Your task to perform on an android device: delete browsing data in the chrome app Image 0: 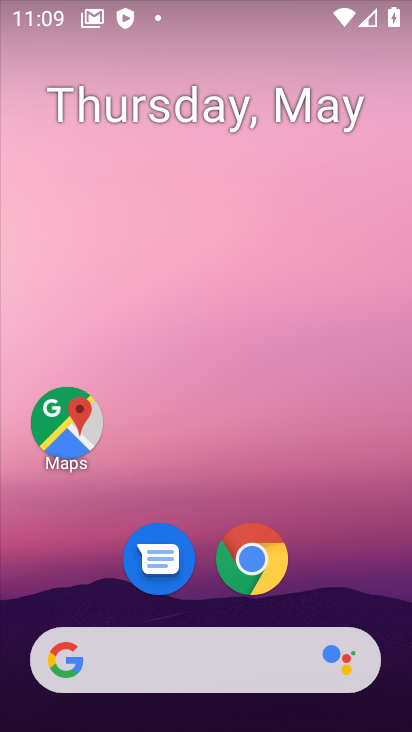
Step 0: click (256, 563)
Your task to perform on an android device: delete browsing data in the chrome app Image 1: 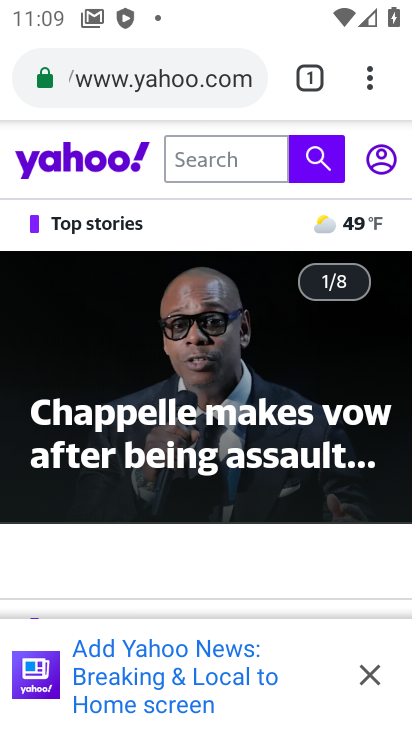
Step 1: click (370, 87)
Your task to perform on an android device: delete browsing data in the chrome app Image 2: 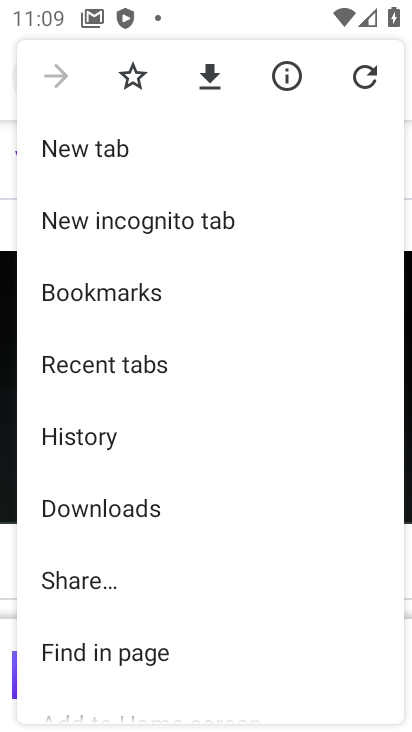
Step 2: click (73, 437)
Your task to perform on an android device: delete browsing data in the chrome app Image 3: 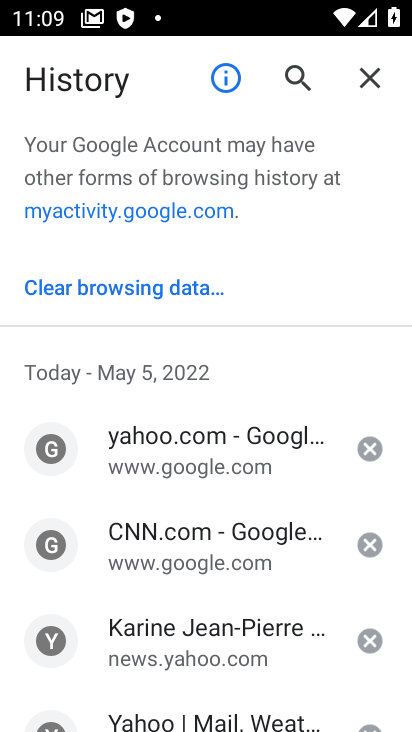
Step 3: click (91, 284)
Your task to perform on an android device: delete browsing data in the chrome app Image 4: 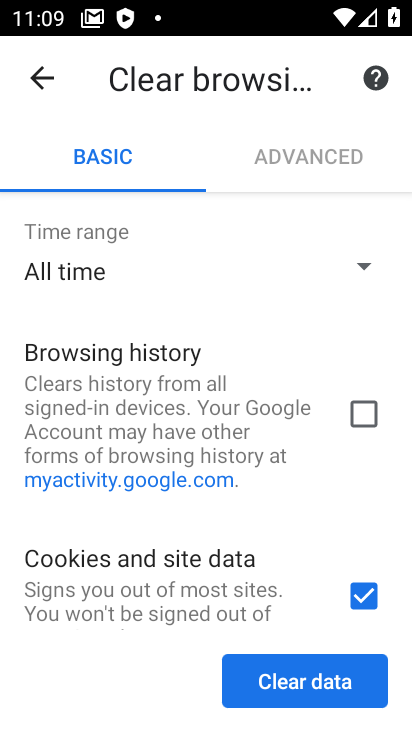
Step 4: click (368, 415)
Your task to perform on an android device: delete browsing data in the chrome app Image 5: 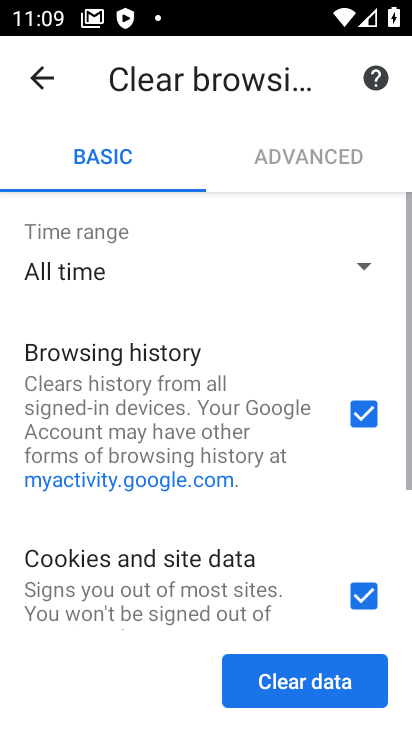
Step 5: drag from (227, 531) to (221, 274)
Your task to perform on an android device: delete browsing data in the chrome app Image 6: 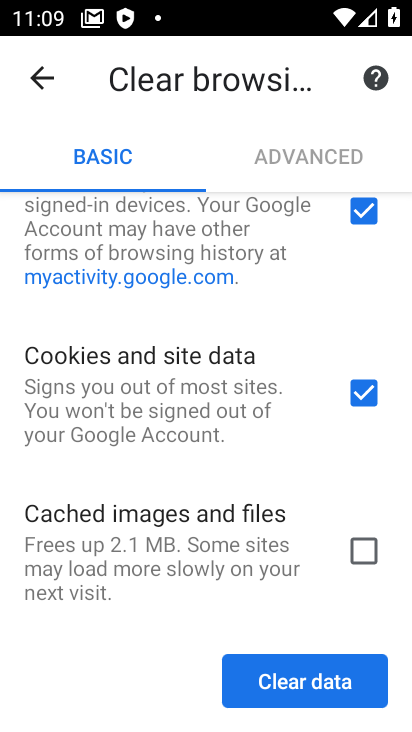
Step 6: click (363, 383)
Your task to perform on an android device: delete browsing data in the chrome app Image 7: 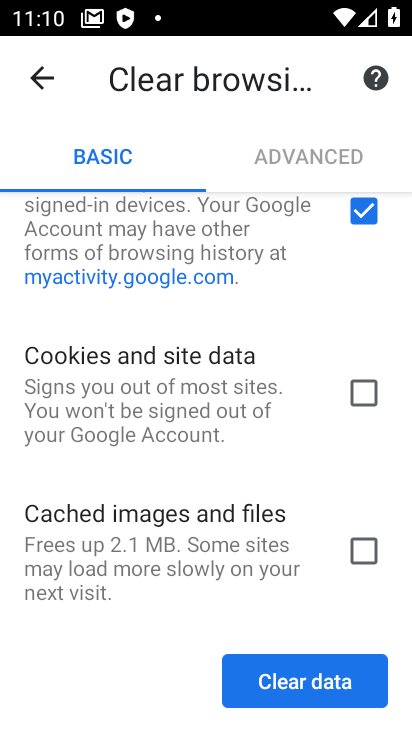
Step 7: click (328, 684)
Your task to perform on an android device: delete browsing data in the chrome app Image 8: 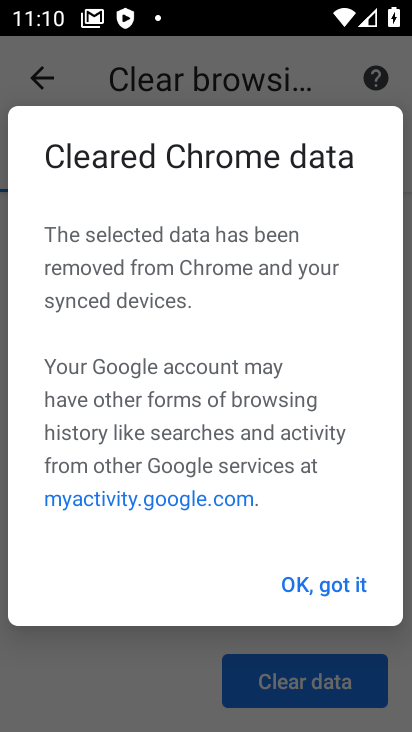
Step 8: click (315, 579)
Your task to perform on an android device: delete browsing data in the chrome app Image 9: 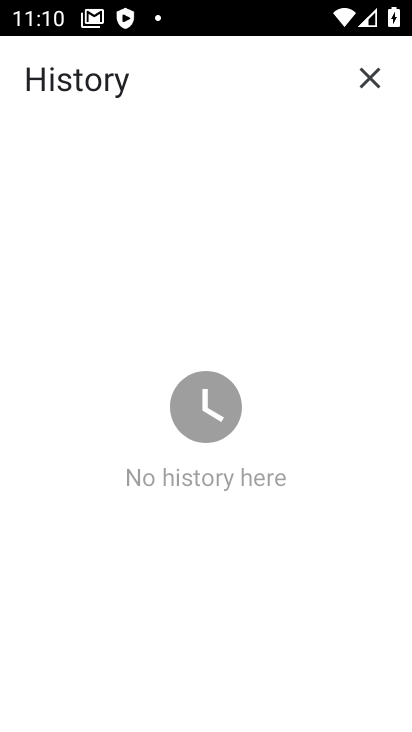
Step 9: task complete